Your task to perform on an android device: Go to Yahoo.com Image 0: 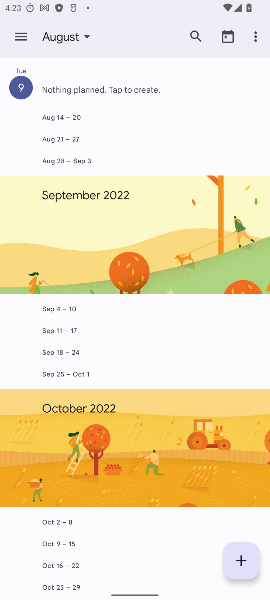
Step 0: press home button
Your task to perform on an android device: Go to Yahoo.com Image 1: 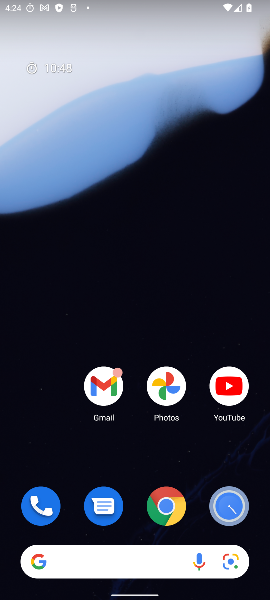
Step 1: drag from (96, 499) to (16, 114)
Your task to perform on an android device: Go to Yahoo.com Image 2: 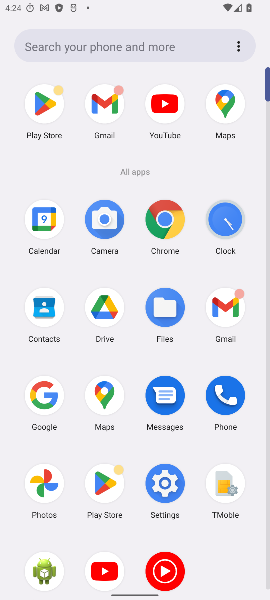
Step 2: click (173, 227)
Your task to perform on an android device: Go to Yahoo.com Image 3: 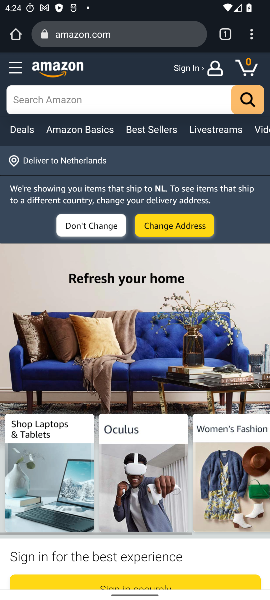
Step 3: click (120, 34)
Your task to perform on an android device: Go to Yahoo.com Image 4: 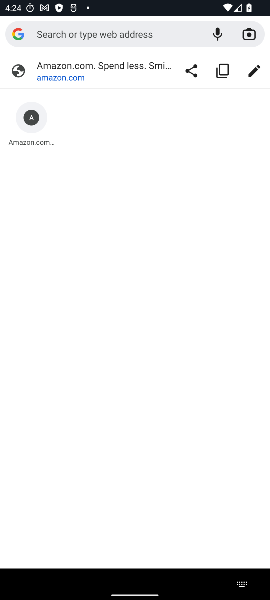
Step 4: type " Yahoo.com"
Your task to perform on an android device: Go to Yahoo.com Image 5: 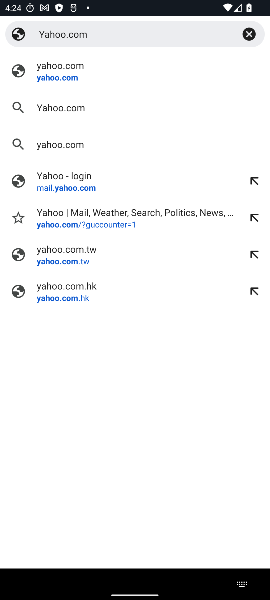
Step 5: click (66, 70)
Your task to perform on an android device: Go to Yahoo.com Image 6: 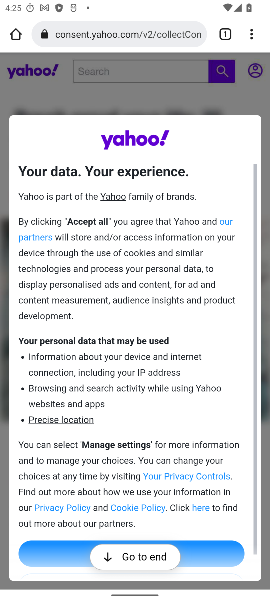
Step 6: task complete